Your task to perform on an android device: Go to display settings Image 0: 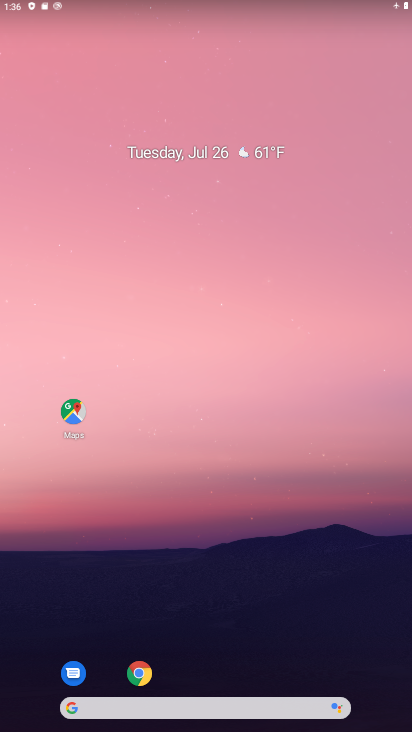
Step 0: drag from (191, 687) to (303, 146)
Your task to perform on an android device: Go to display settings Image 1: 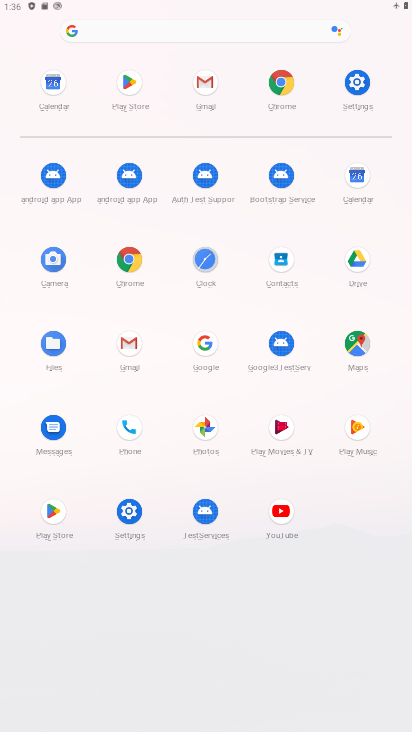
Step 1: click (123, 506)
Your task to perform on an android device: Go to display settings Image 2: 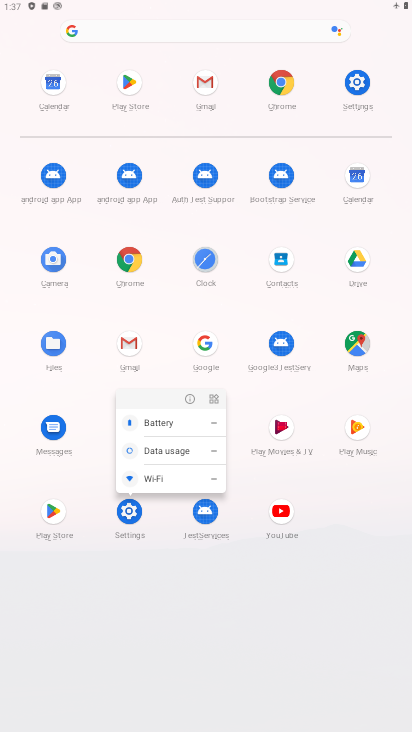
Step 2: click (187, 397)
Your task to perform on an android device: Go to display settings Image 3: 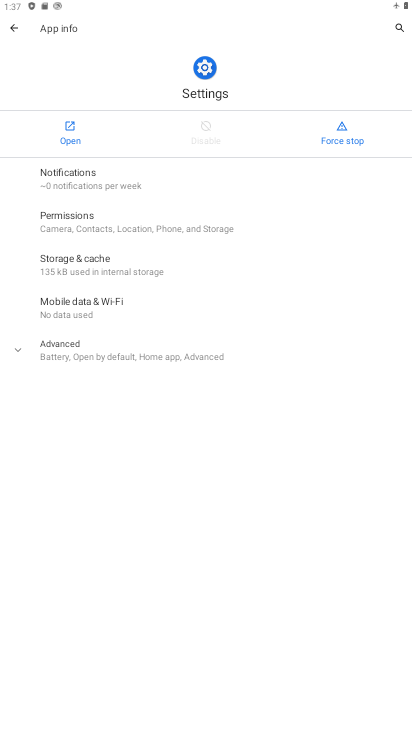
Step 3: click (85, 133)
Your task to perform on an android device: Go to display settings Image 4: 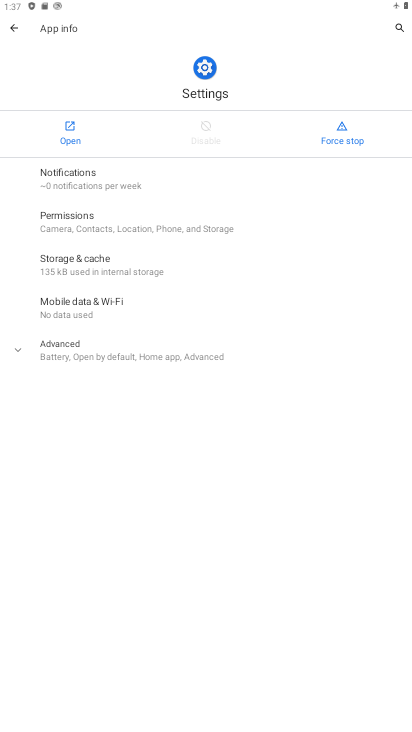
Step 4: click (62, 123)
Your task to perform on an android device: Go to display settings Image 5: 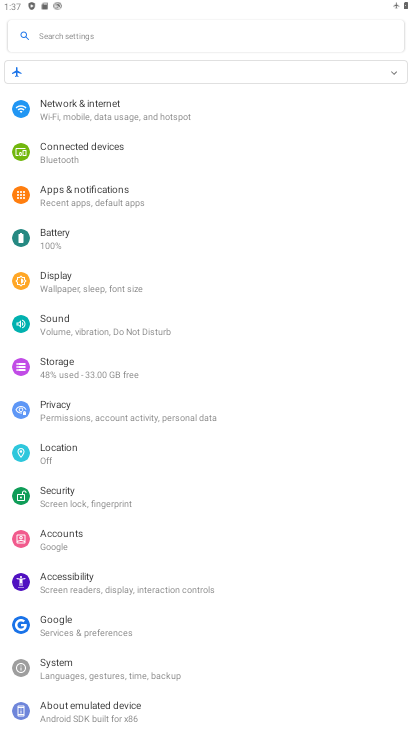
Step 5: click (104, 286)
Your task to perform on an android device: Go to display settings Image 6: 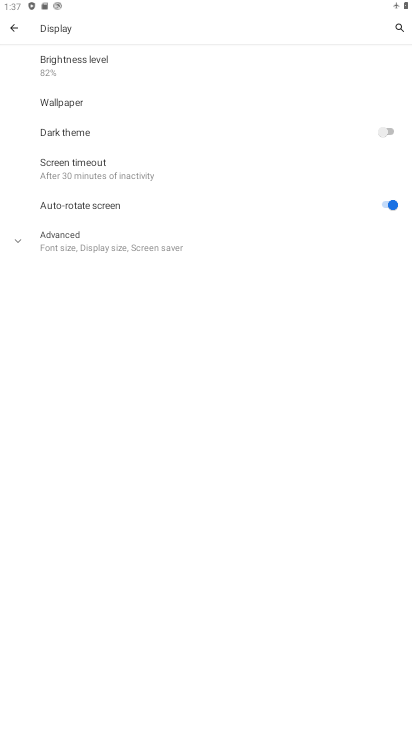
Step 6: task complete